Your task to perform on an android device: Go to settings Image 0: 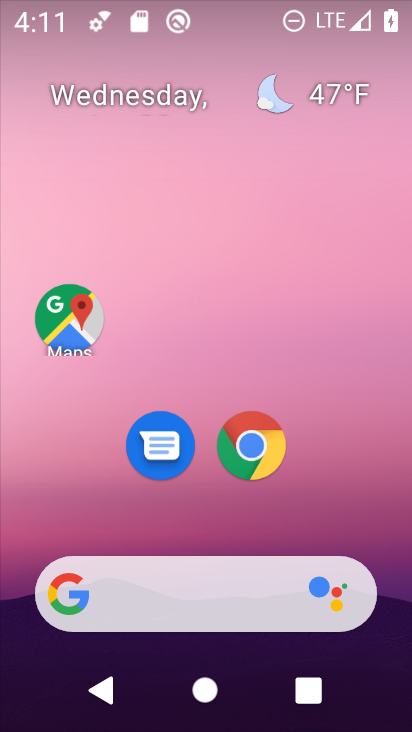
Step 0: drag from (335, 503) to (367, 99)
Your task to perform on an android device: Go to settings Image 1: 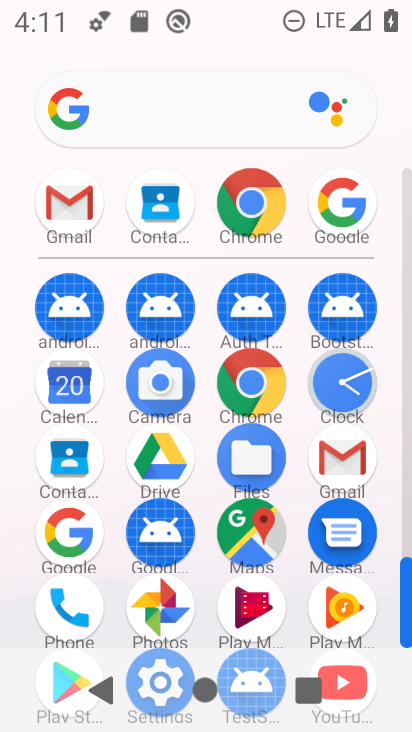
Step 1: drag from (112, 494) to (181, 225)
Your task to perform on an android device: Go to settings Image 2: 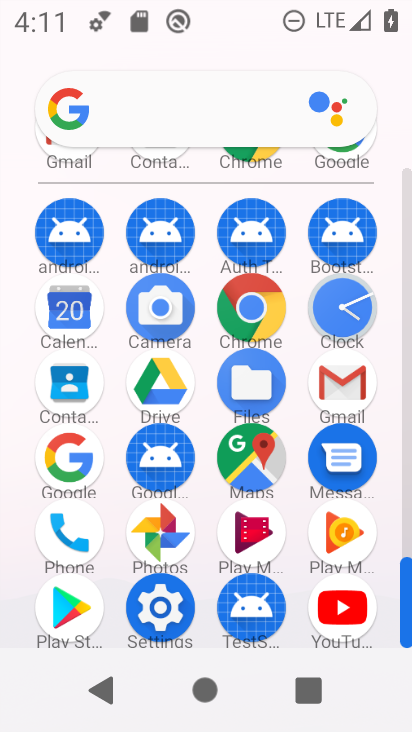
Step 2: click (166, 608)
Your task to perform on an android device: Go to settings Image 3: 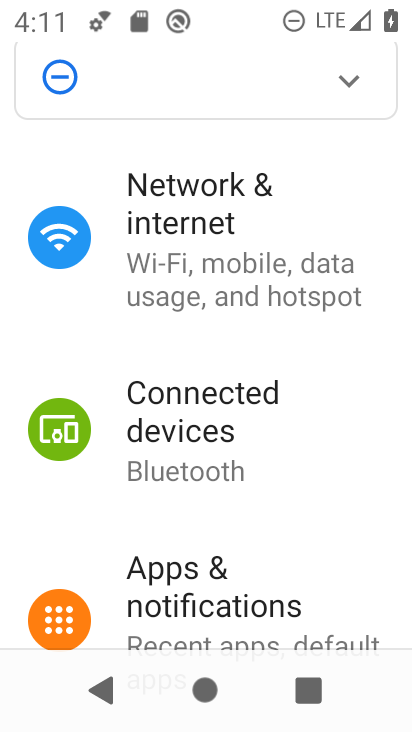
Step 3: task complete